Your task to perform on an android device: Open Google Image 0: 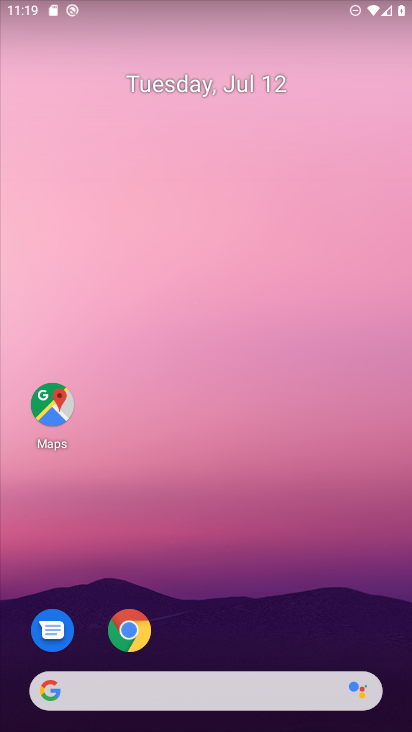
Step 0: drag from (198, 307) to (170, 99)
Your task to perform on an android device: Open Google Image 1: 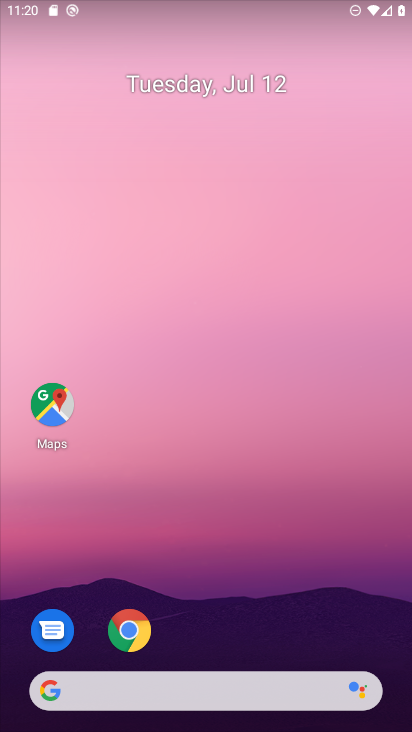
Step 1: drag from (335, 547) to (214, 42)
Your task to perform on an android device: Open Google Image 2: 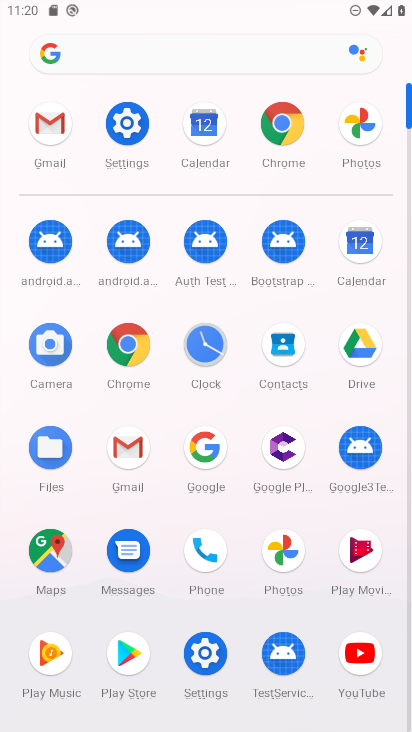
Step 2: click (216, 453)
Your task to perform on an android device: Open Google Image 3: 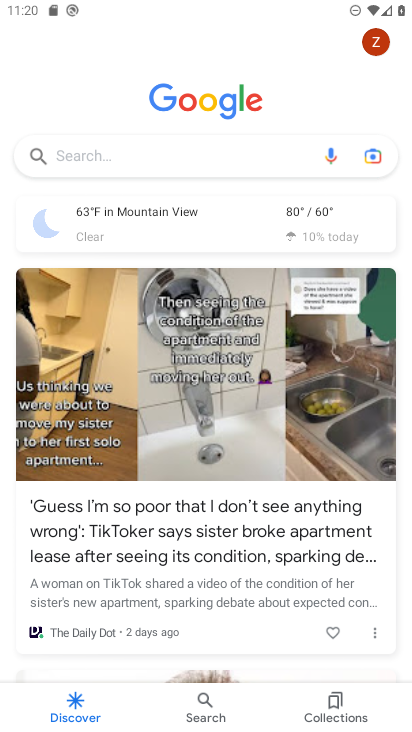
Step 3: task complete